Your task to perform on an android device: Open Amazon Image 0: 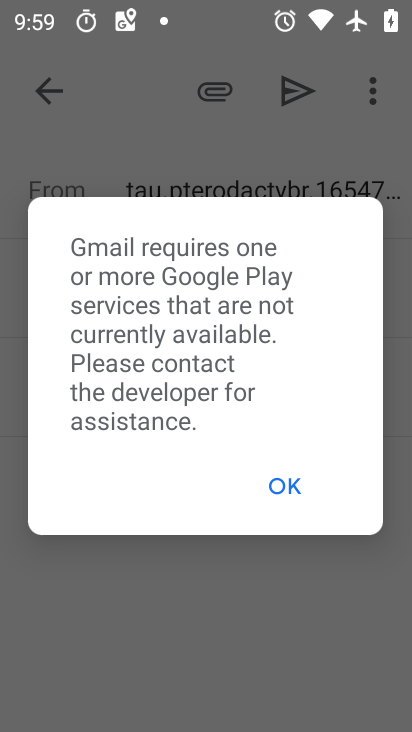
Step 0: press home button
Your task to perform on an android device: Open Amazon Image 1: 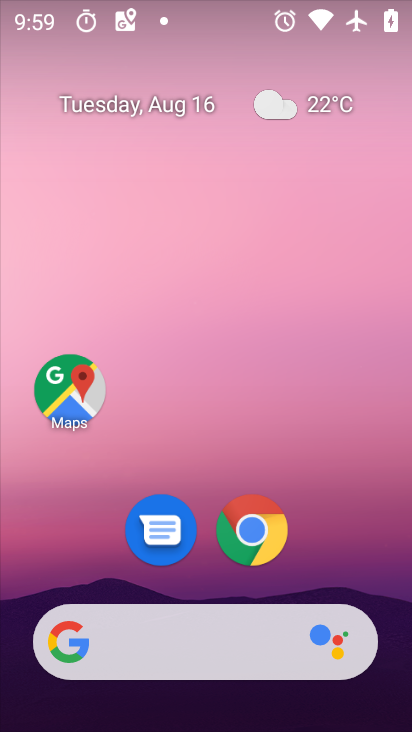
Step 1: drag from (315, 433) to (291, 28)
Your task to perform on an android device: Open Amazon Image 2: 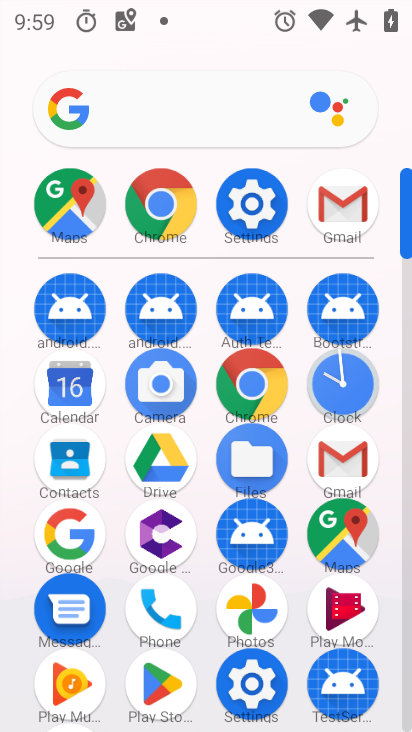
Step 2: click (249, 379)
Your task to perform on an android device: Open Amazon Image 3: 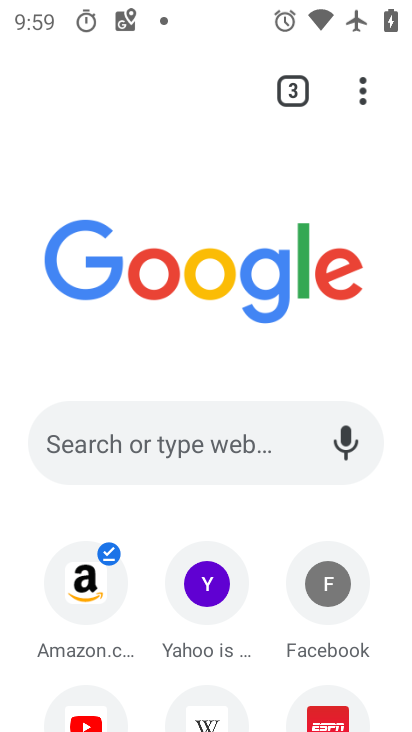
Step 3: click (69, 591)
Your task to perform on an android device: Open Amazon Image 4: 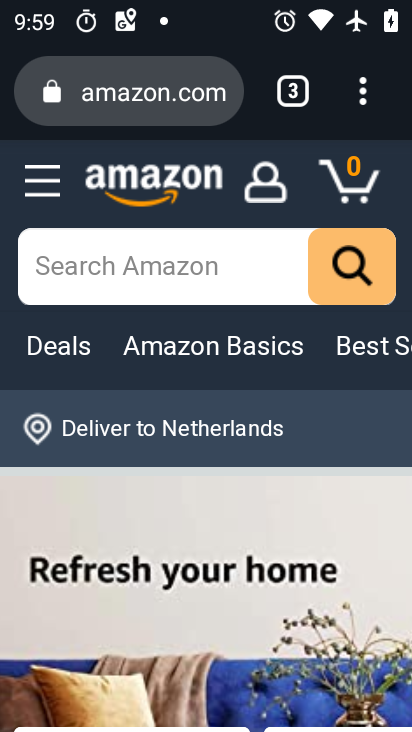
Step 4: task complete